Your task to perform on an android device: change alarm snooze length Image 0: 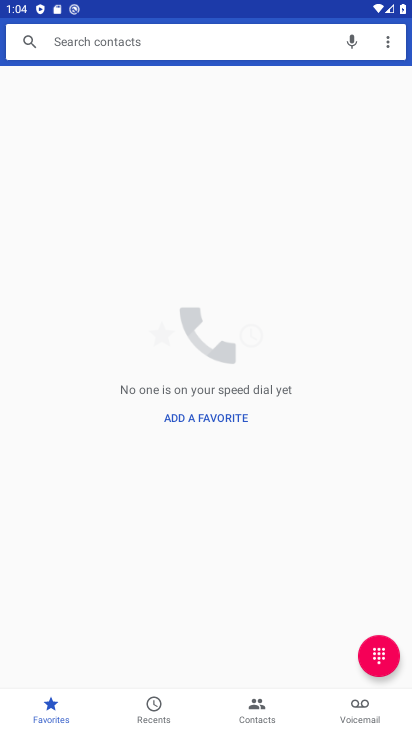
Step 0: press home button
Your task to perform on an android device: change alarm snooze length Image 1: 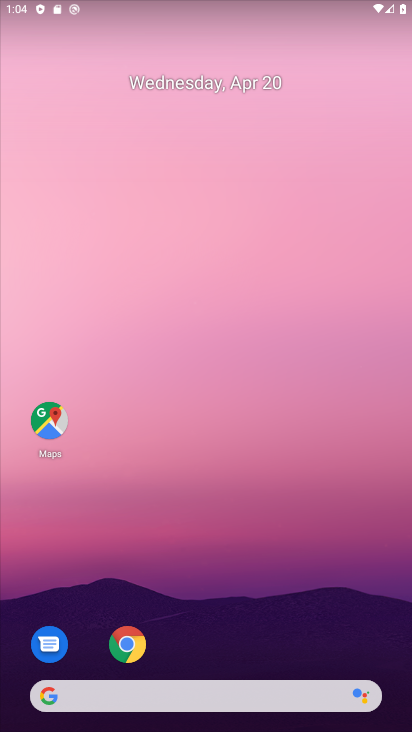
Step 1: drag from (269, 696) to (279, 215)
Your task to perform on an android device: change alarm snooze length Image 2: 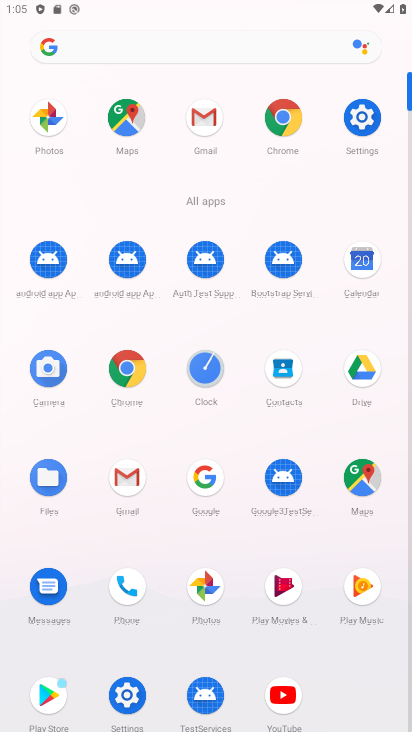
Step 2: click (200, 362)
Your task to perform on an android device: change alarm snooze length Image 3: 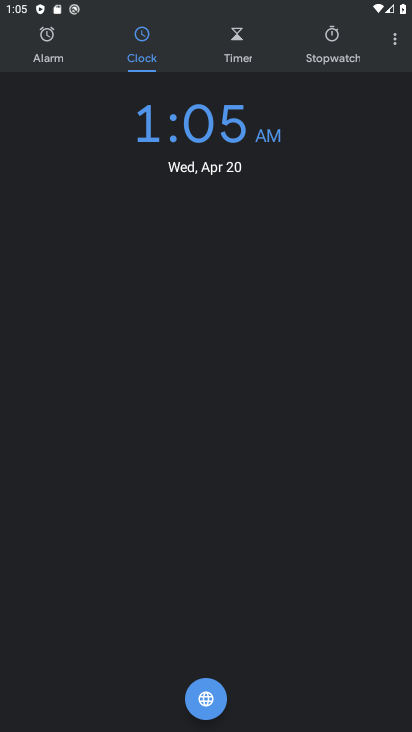
Step 3: click (390, 39)
Your task to perform on an android device: change alarm snooze length Image 4: 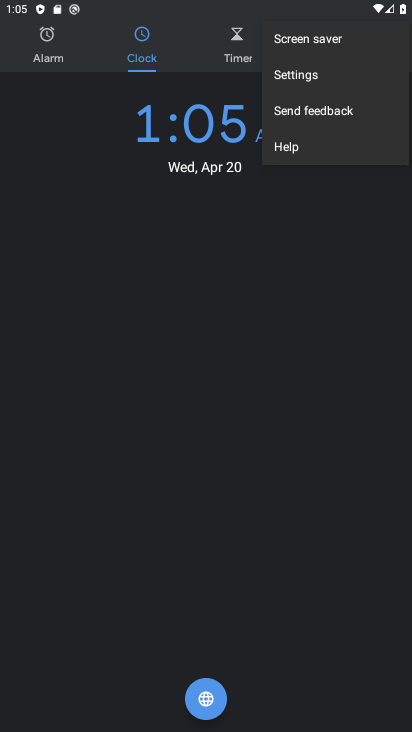
Step 4: click (322, 79)
Your task to perform on an android device: change alarm snooze length Image 5: 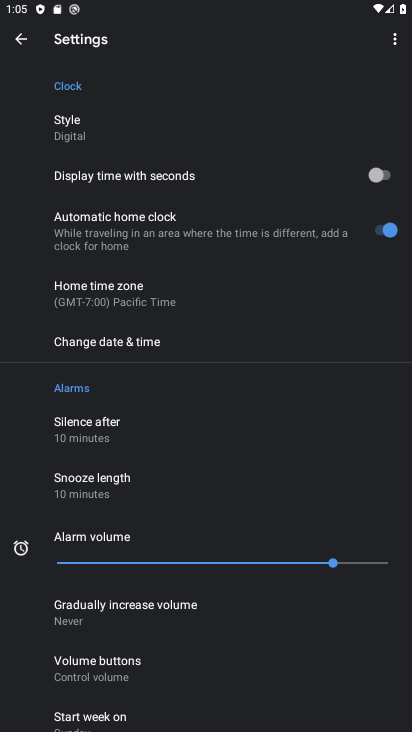
Step 5: drag from (124, 521) to (167, 106)
Your task to perform on an android device: change alarm snooze length Image 6: 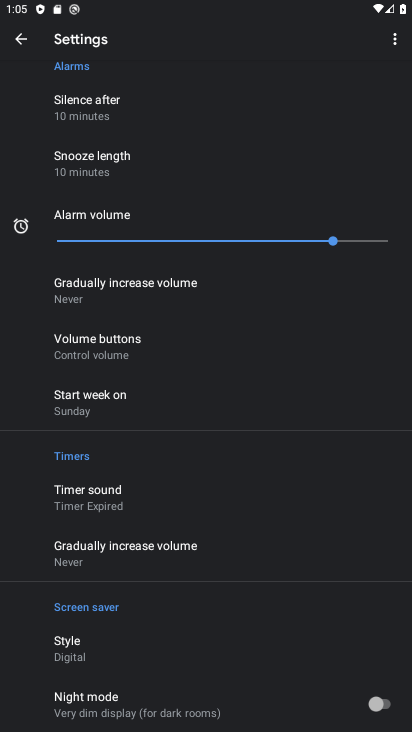
Step 6: drag from (162, 562) to (211, 124)
Your task to perform on an android device: change alarm snooze length Image 7: 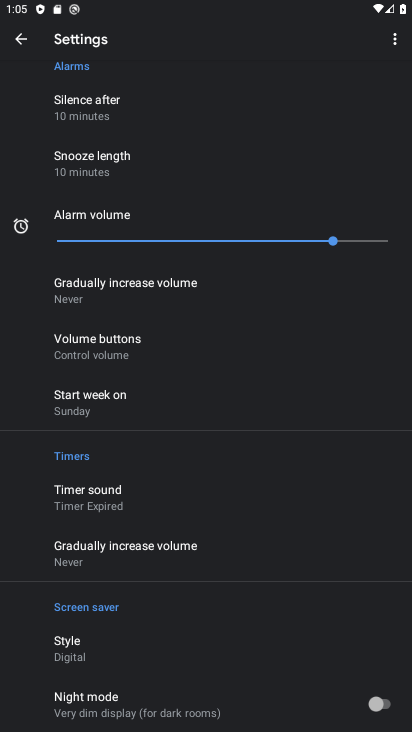
Step 7: drag from (163, 394) to (186, 558)
Your task to perform on an android device: change alarm snooze length Image 8: 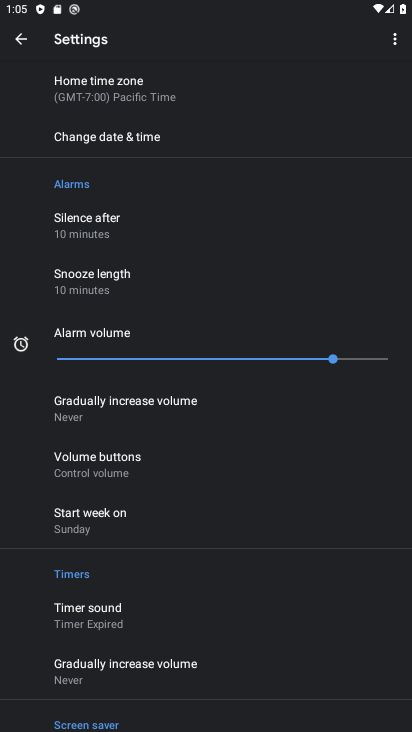
Step 8: click (106, 276)
Your task to perform on an android device: change alarm snooze length Image 9: 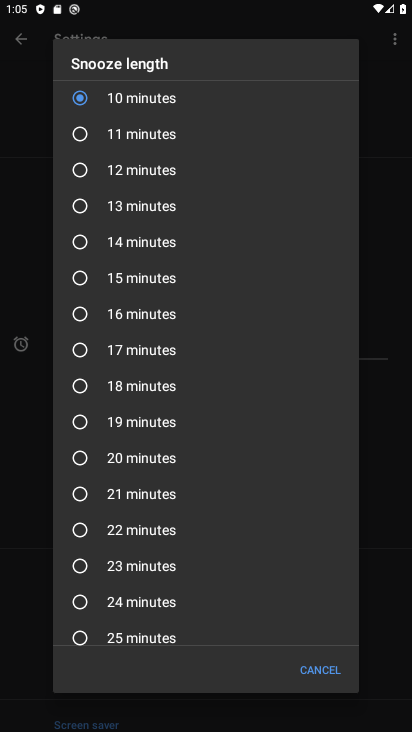
Step 9: click (80, 171)
Your task to perform on an android device: change alarm snooze length Image 10: 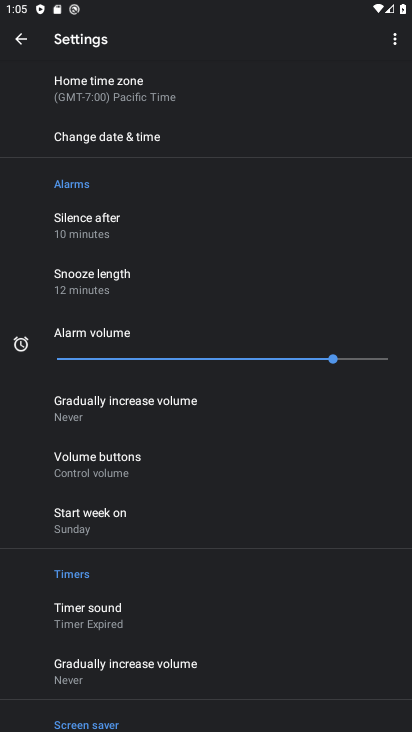
Step 10: task complete